Your task to perform on an android device: Go to Amazon Image 0: 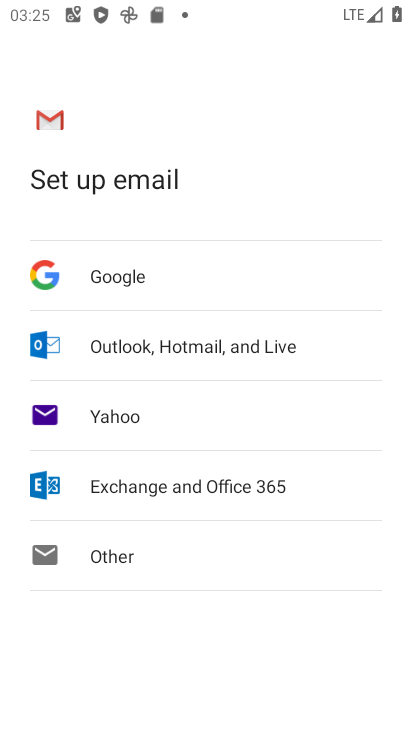
Step 0: press home button
Your task to perform on an android device: Go to Amazon Image 1: 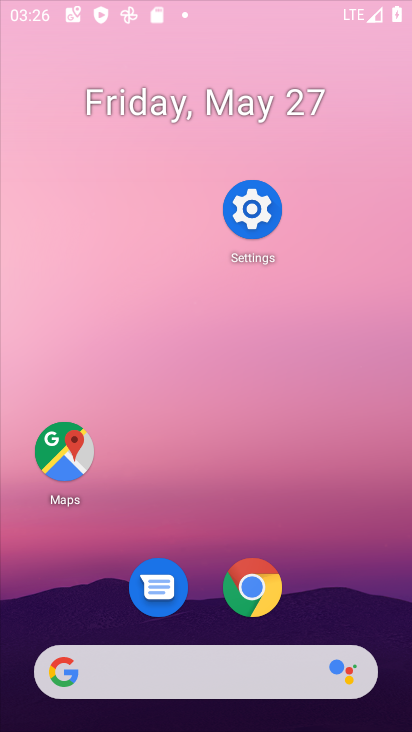
Step 1: click (167, 661)
Your task to perform on an android device: Go to Amazon Image 2: 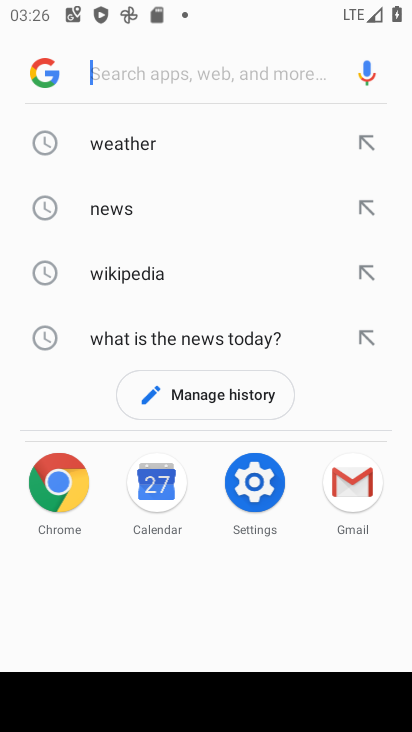
Step 2: type "Amazon"
Your task to perform on an android device: Go to Amazon Image 3: 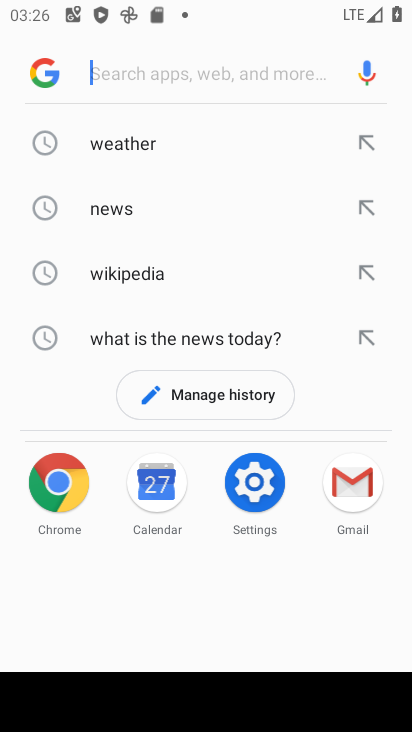
Step 3: click (158, 74)
Your task to perform on an android device: Go to Amazon Image 4: 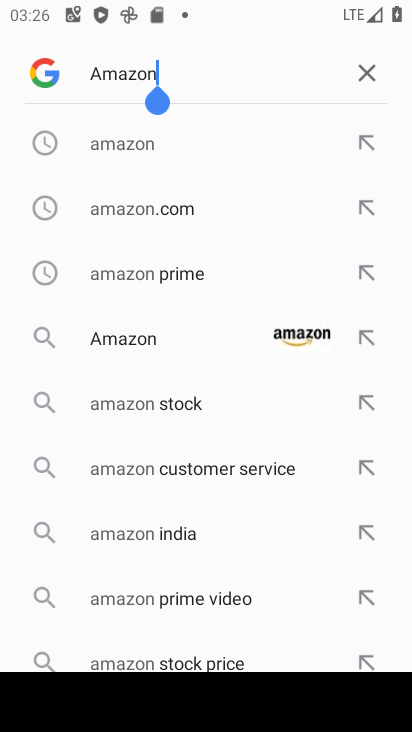
Step 4: click (156, 343)
Your task to perform on an android device: Go to Amazon Image 5: 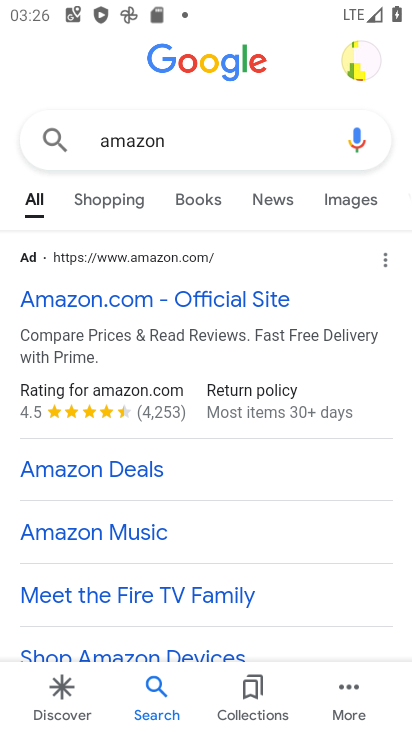
Step 5: drag from (336, 485) to (309, 203)
Your task to perform on an android device: Go to Amazon Image 6: 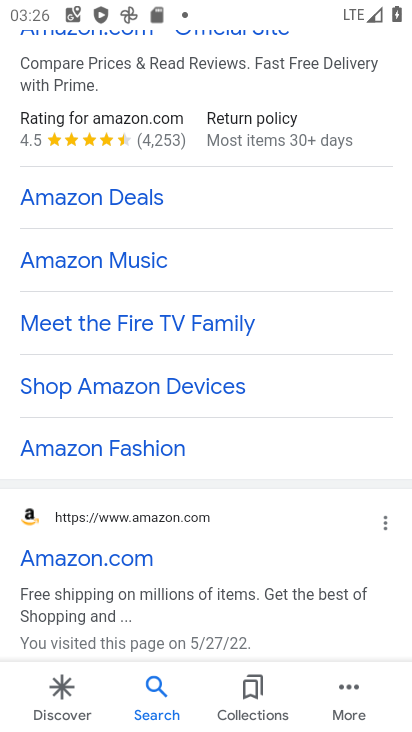
Step 6: click (86, 554)
Your task to perform on an android device: Go to Amazon Image 7: 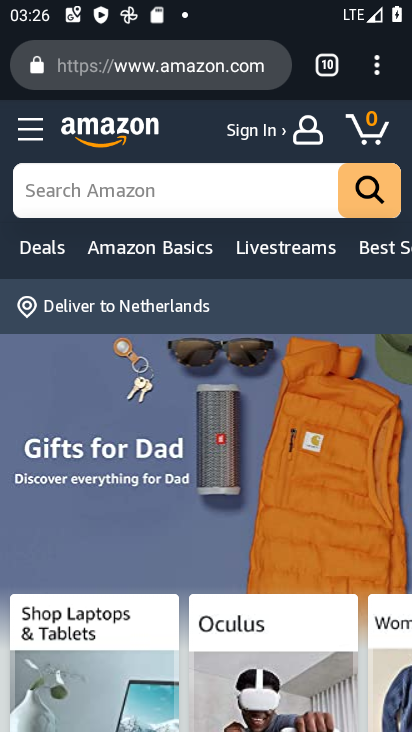
Step 7: task complete